Your task to perform on an android device: turn on sleep mode Image 0: 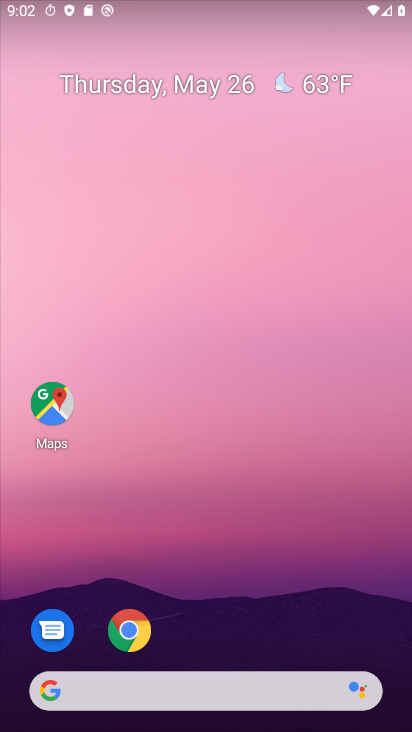
Step 0: drag from (271, 698) to (159, 192)
Your task to perform on an android device: turn on sleep mode Image 1: 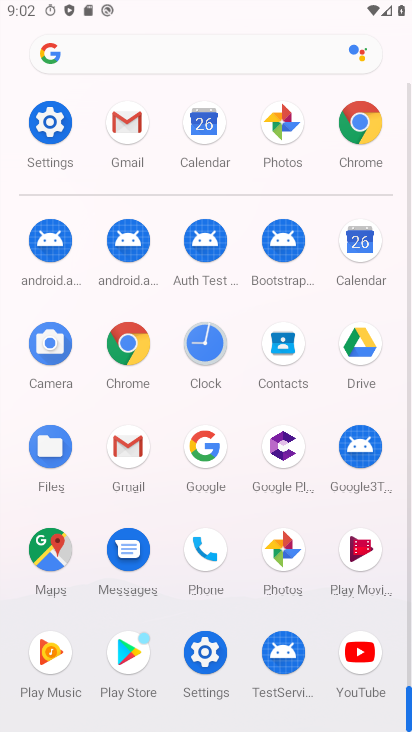
Step 1: click (43, 130)
Your task to perform on an android device: turn on sleep mode Image 2: 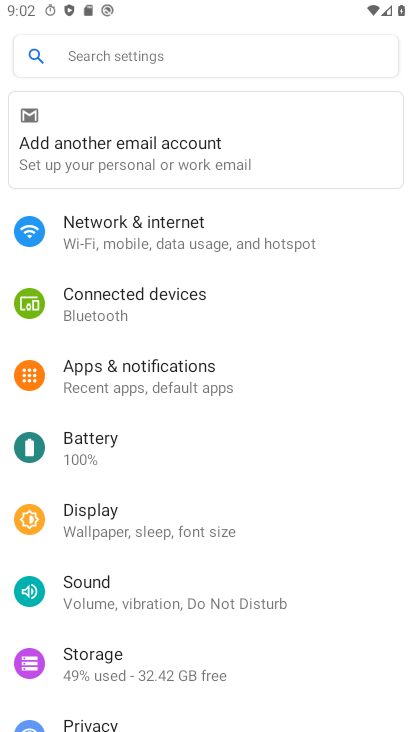
Step 2: click (110, 509)
Your task to perform on an android device: turn on sleep mode Image 3: 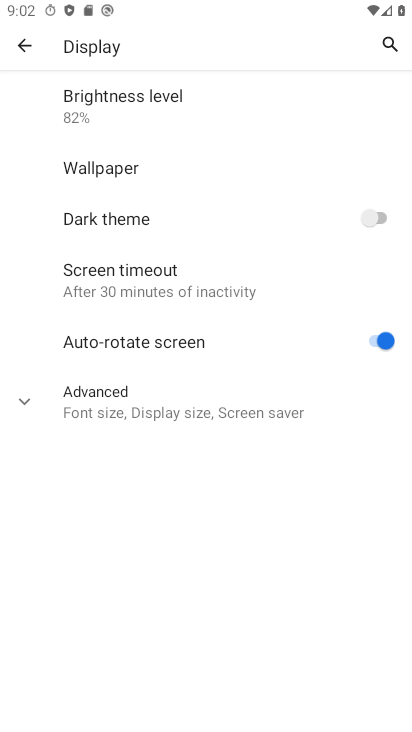
Step 3: task complete